Your task to perform on an android device: Go to privacy settings Image 0: 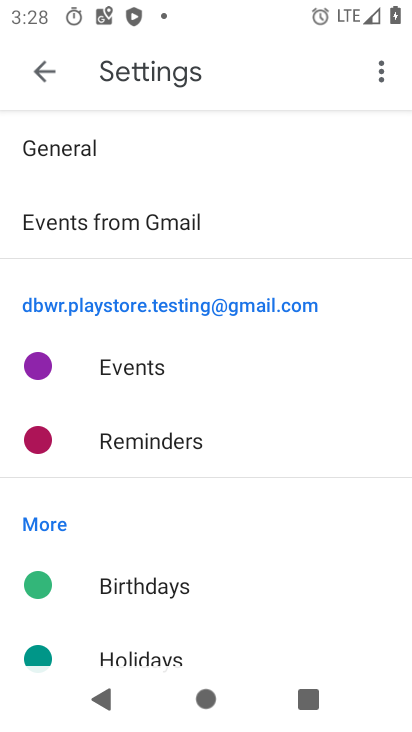
Step 0: press home button
Your task to perform on an android device: Go to privacy settings Image 1: 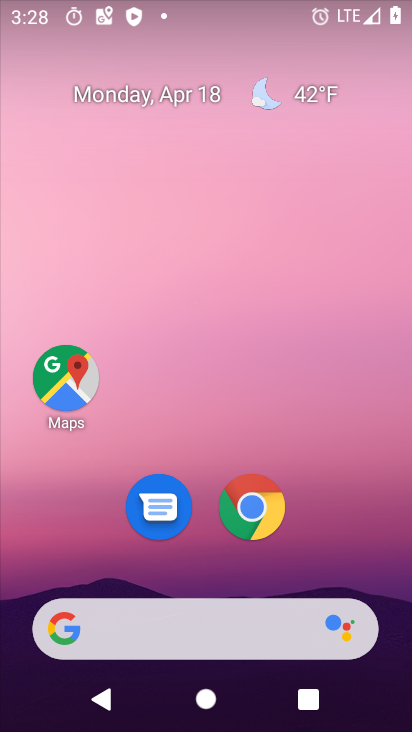
Step 1: drag from (367, 528) to (351, 96)
Your task to perform on an android device: Go to privacy settings Image 2: 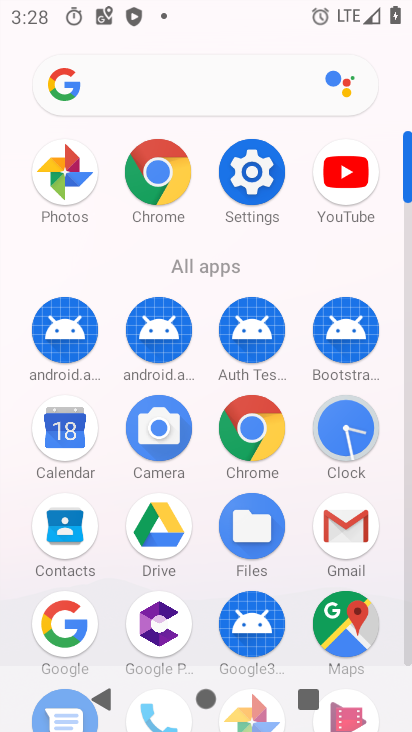
Step 2: click (253, 175)
Your task to perform on an android device: Go to privacy settings Image 3: 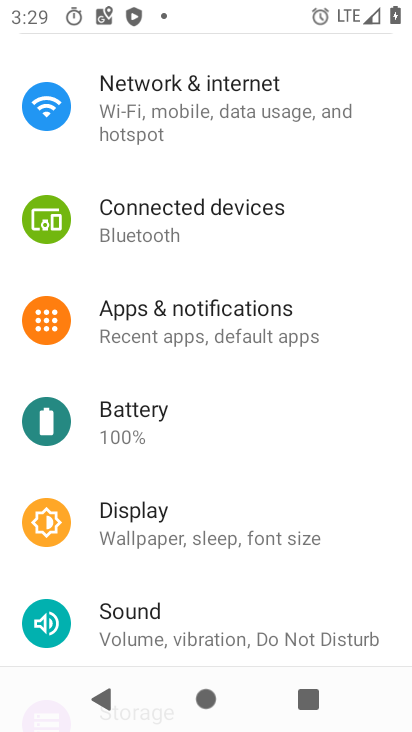
Step 3: drag from (366, 599) to (344, 381)
Your task to perform on an android device: Go to privacy settings Image 4: 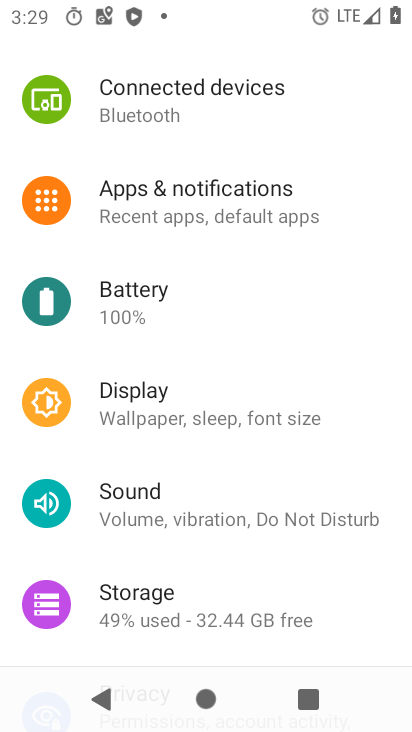
Step 4: drag from (347, 586) to (344, 381)
Your task to perform on an android device: Go to privacy settings Image 5: 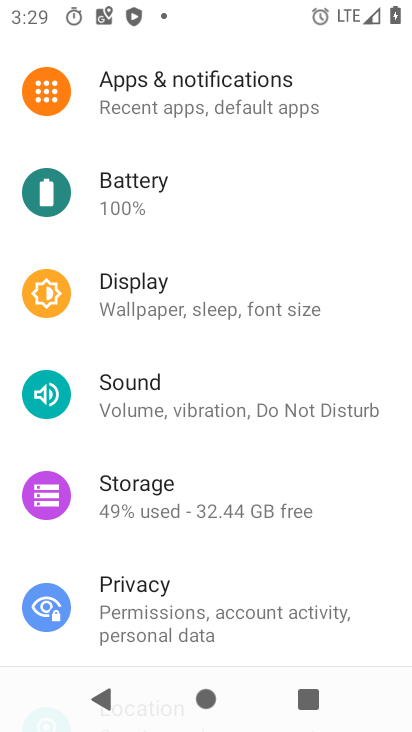
Step 5: click (250, 602)
Your task to perform on an android device: Go to privacy settings Image 6: 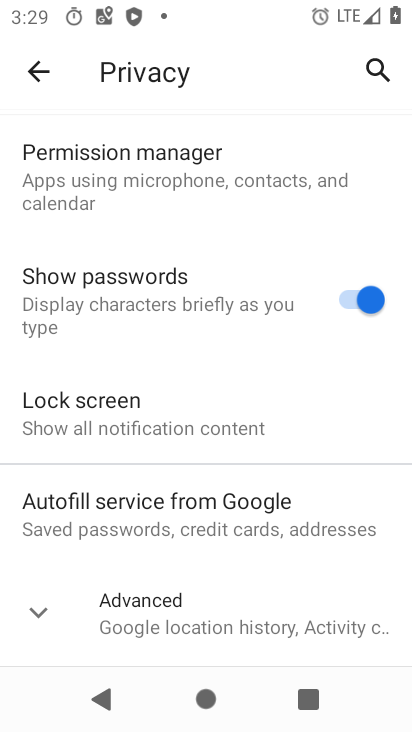
Step 6: task complete